Your task to perform on an android device: Play the last video I watched on Youtube Image 0: 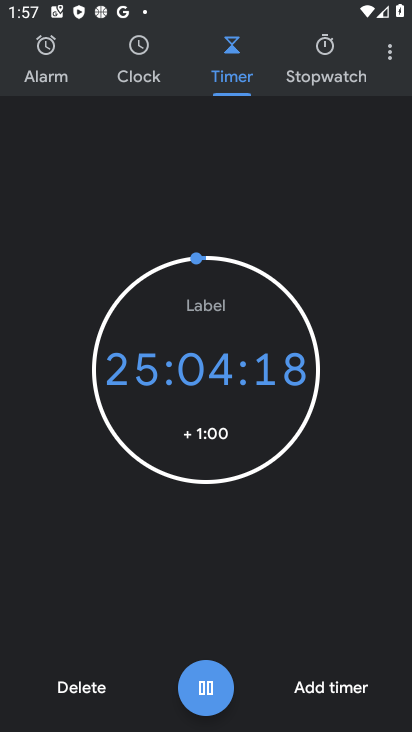
Step 0: press home button
Your task to perform on an android device: Play the last video I watched on Youtube Image 1: 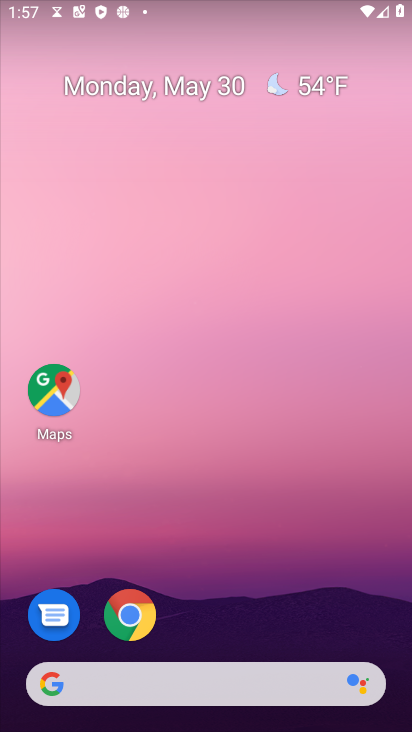
Step 1: drag from (358, 596) to (307, 143)
Your task to perform on an android device: Play the last video I watched on Youtube Image 2: 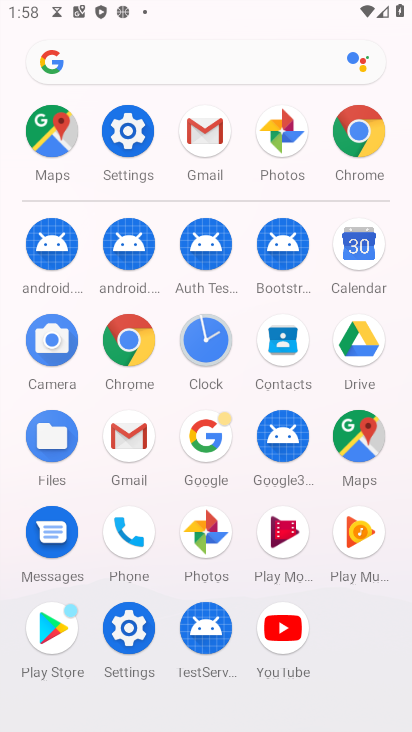
Step 2: click (299, 645)
Your task to perform on an android device: Play the last video I watched on Youtube Image 3: 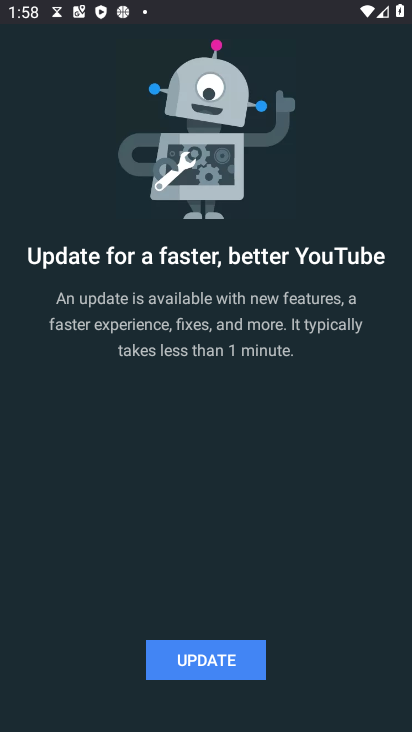
Step 3: click (213, 663)
Your task to perform on an android device: Play the last video I watched on Youtube Image 4: 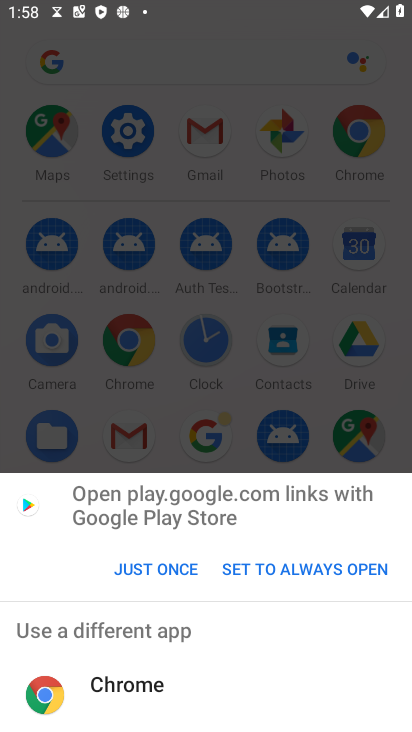
Step 4: click (146, 558)
Your task to perform on an android device: Play the last video I watched on Youtube Image 5: 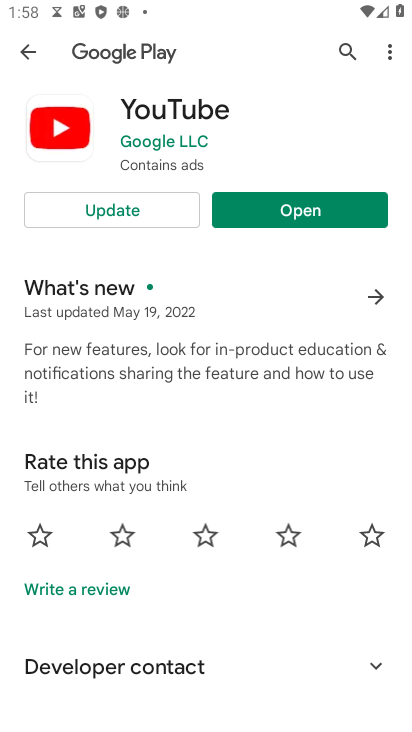
Step 5: click (119, 194)
Your task to perform on an android device: Play the last video I watched on Youtube Image 6: 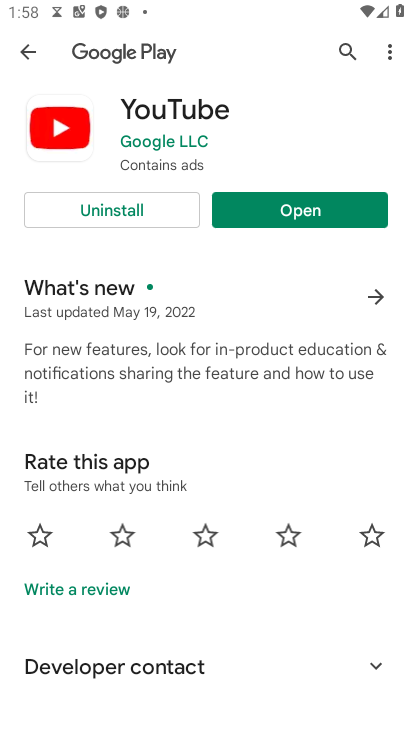
Step 6: click (299, 219)
Your task to perform on an android device: Play the last video I watched on Youtube Image 7: 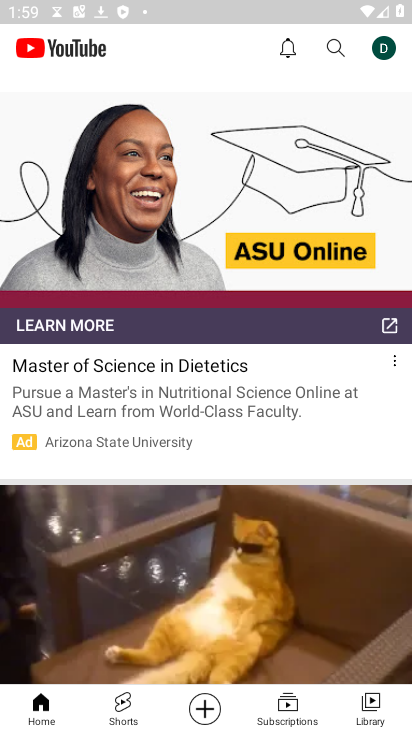
Step 7: click (384, 700)
Your task to perform on an android device: Play the last video I watched on Youtube Image 8: 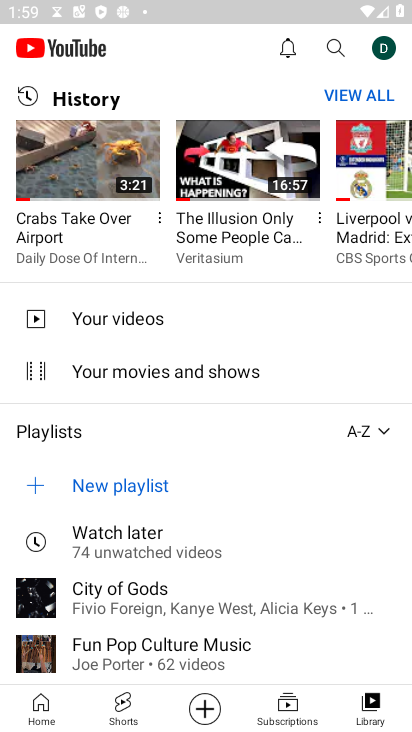
Step 8: click (82, 196)
Your task to perform on an android device: Play the last video I watched on Youtube Image 9: 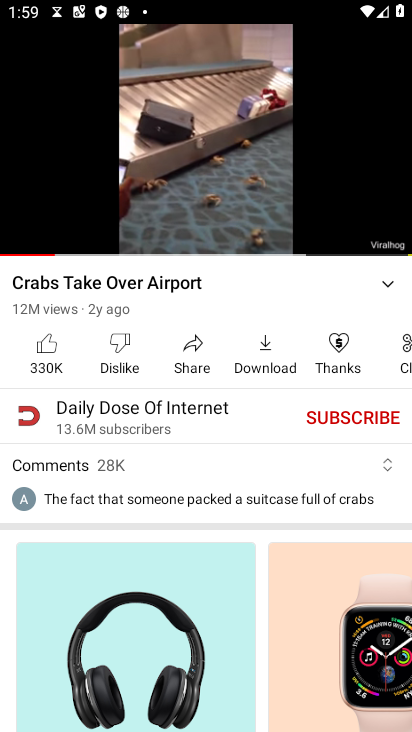
Step 9: task complete